Your task to perform on an android device: turn vacation reply on in the gmail app Image 0: 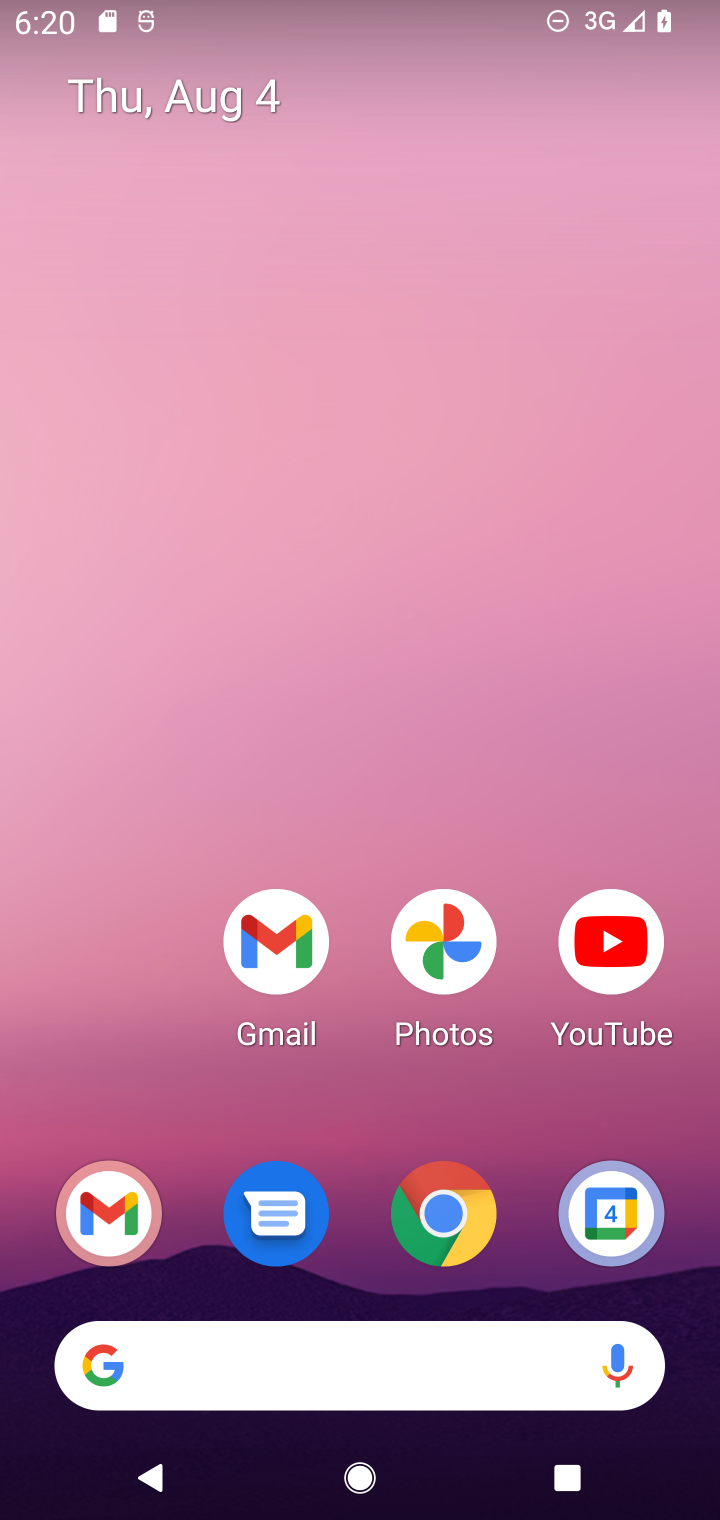
Step 0: press home button
Your task to perform on an android device: turn vacation reply on in the gmail app Image 1: 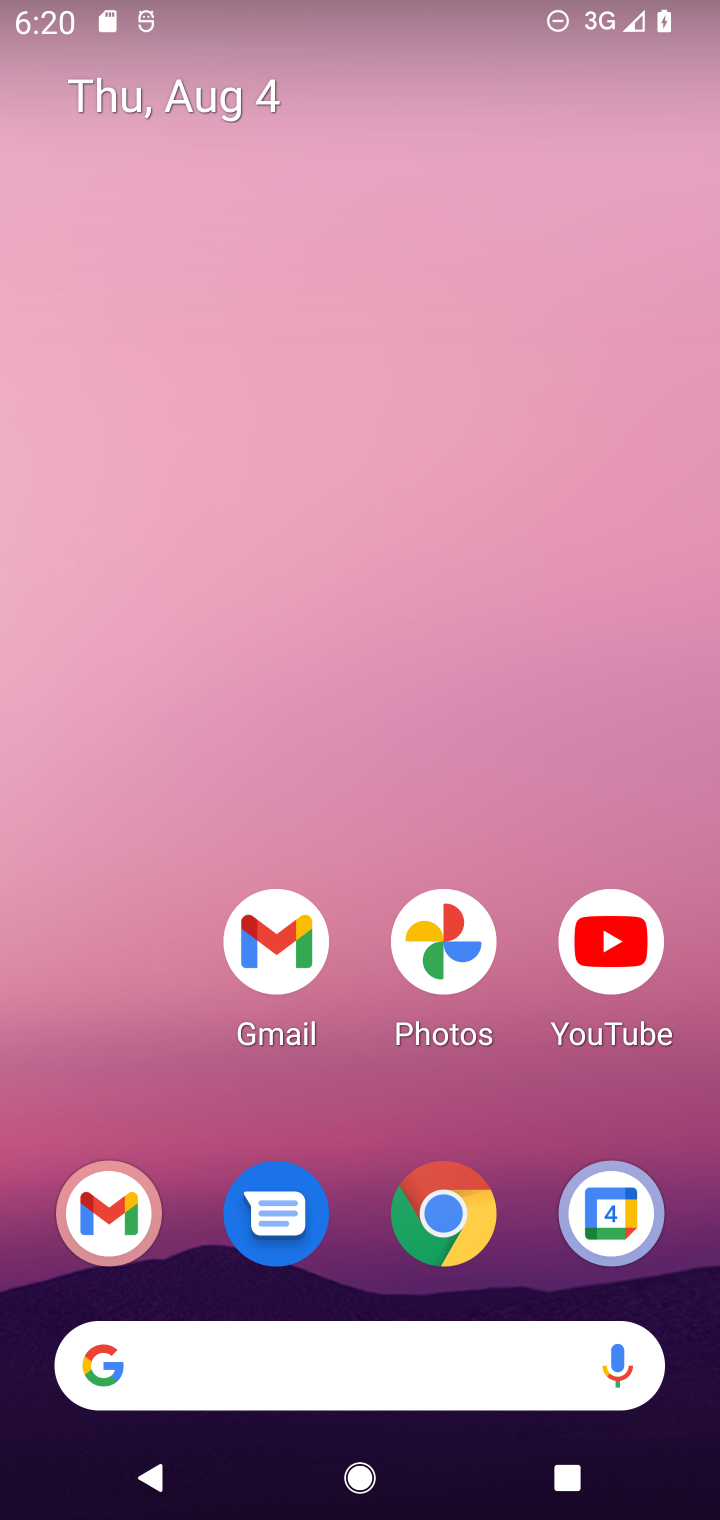
Step 1: drag from (171, 1112) to (198, 344)
Your task to perform on an android device: turn vacation reply on in the gmail app Image 2: 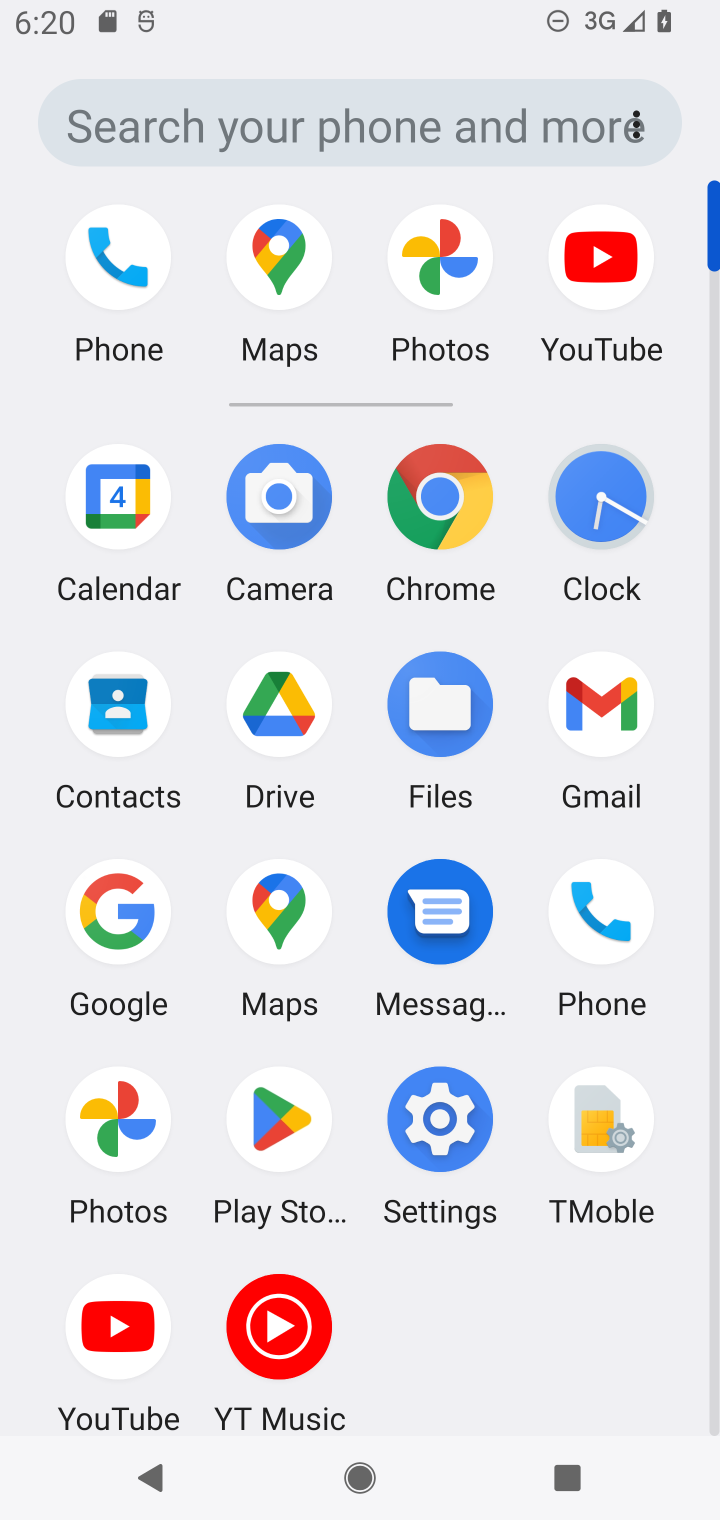
Step 2: click (613, 702)
Your task to perform on an android device: turn vacation reply on in the gmail app Image 3: 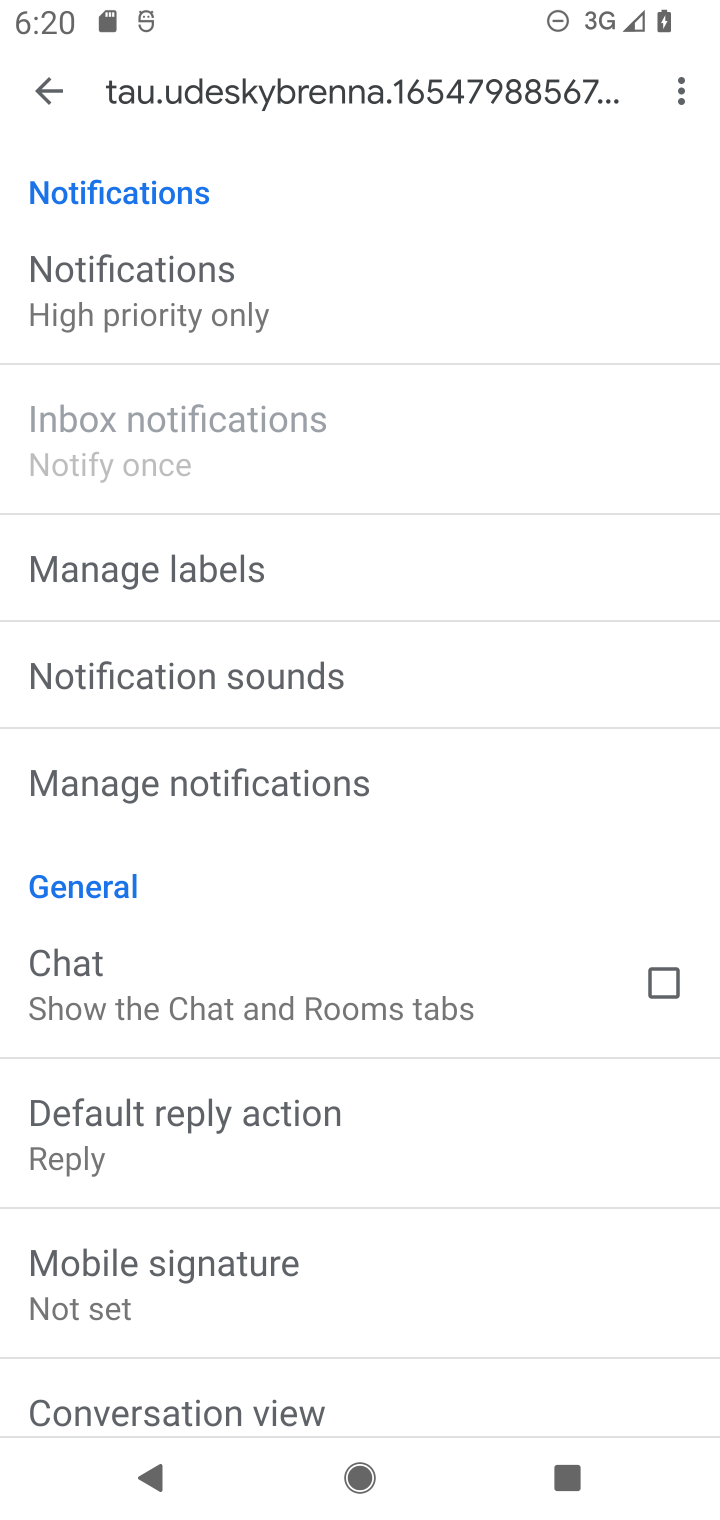
Step 3: drag from (456, 1104) to (490, 792)
Your task to perform on an android device: turn vacation reply on in the gmail app Image 4: 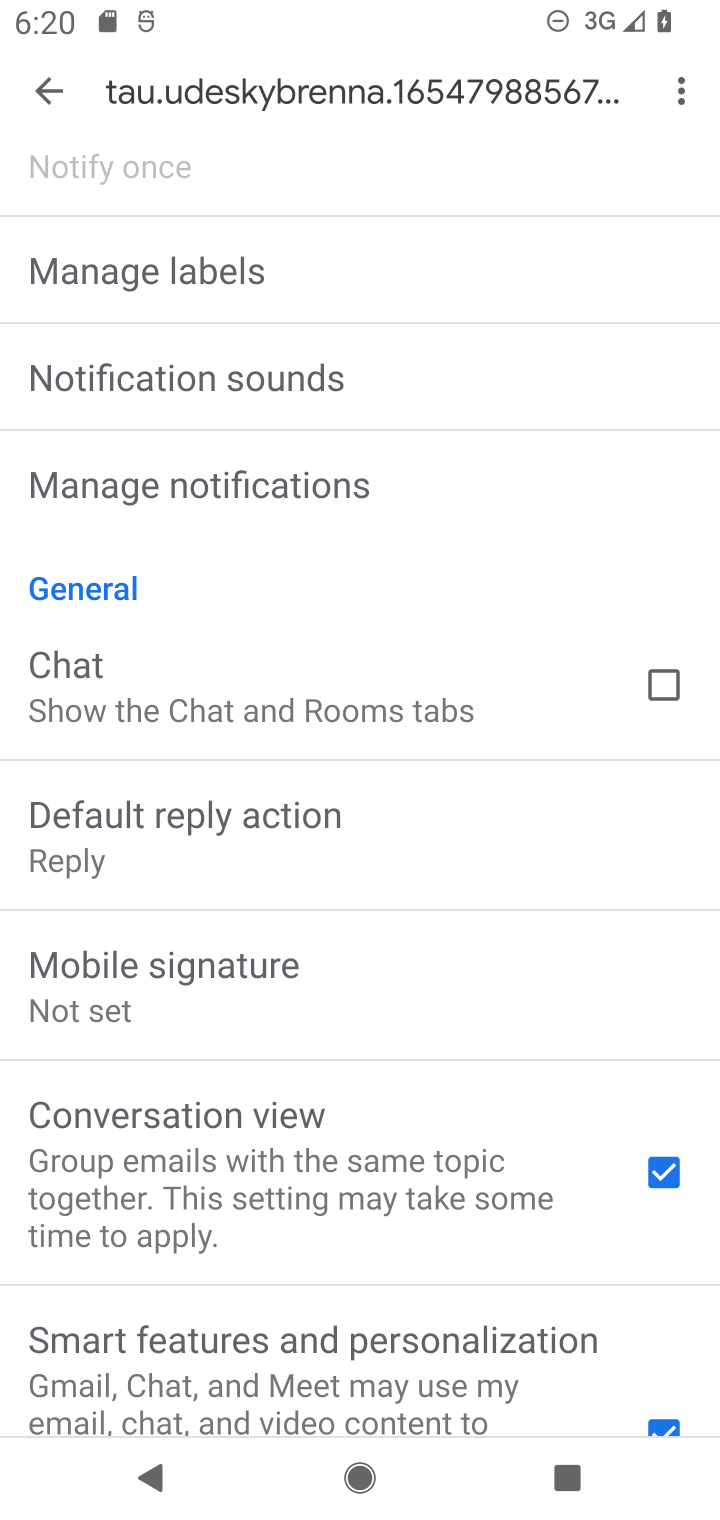
Step 4: drag from (546, 1054) to (552, 874)
Your task to perform on an android device: turn vacation reply on in the gmail app Image 5: 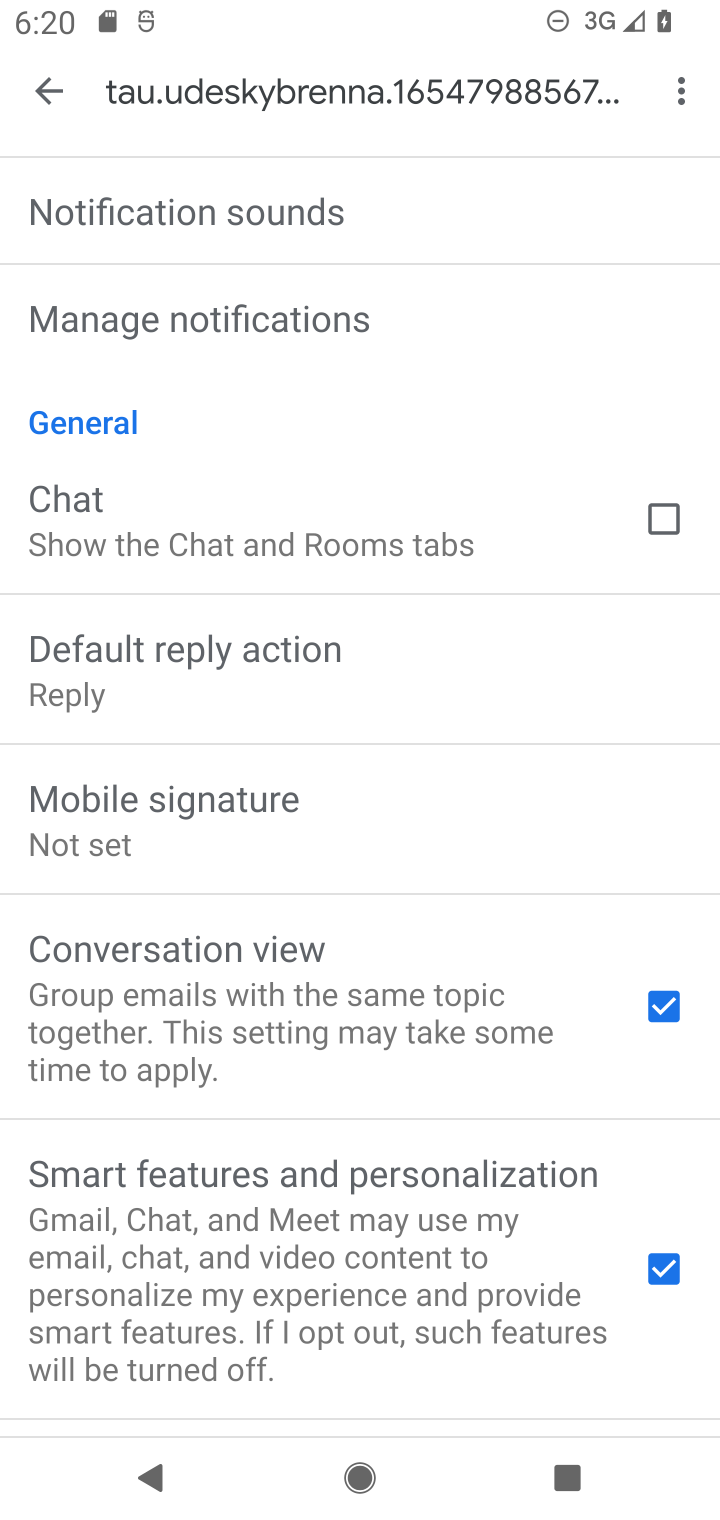
Step 5: drag from (488, 1168) to (511, 872)
Your task to perform on an android device: turn vacation reply on in the gmail app Image 6: 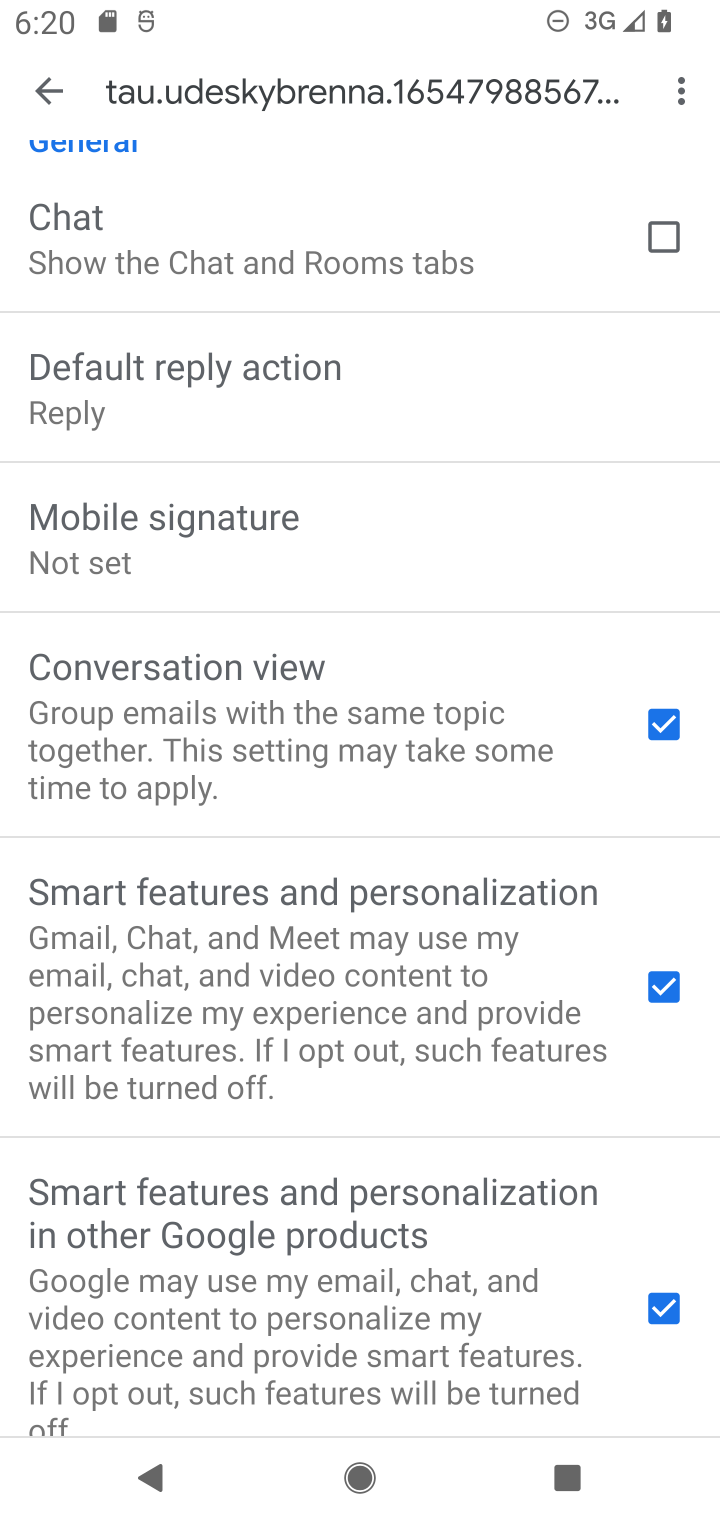
Step 6: drag from (469, 1233) to (483, 942)
Your task to perform on an android device: turn vacation reply on in the gmail app Image 7: 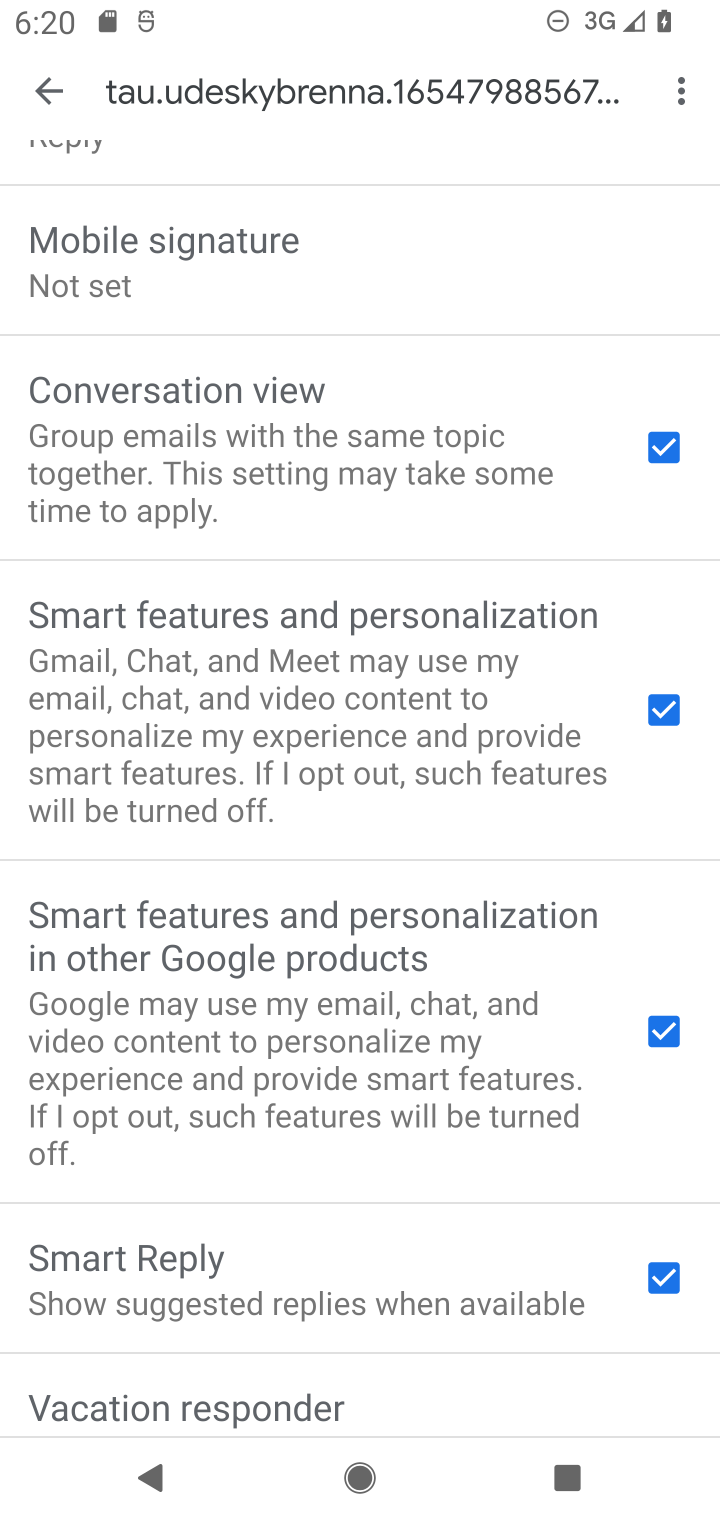
Step 7: drag from (455, 1281) to (451, 988)
Your task to perform on an android device: turn vacation reply on in the gmail app Image 8: 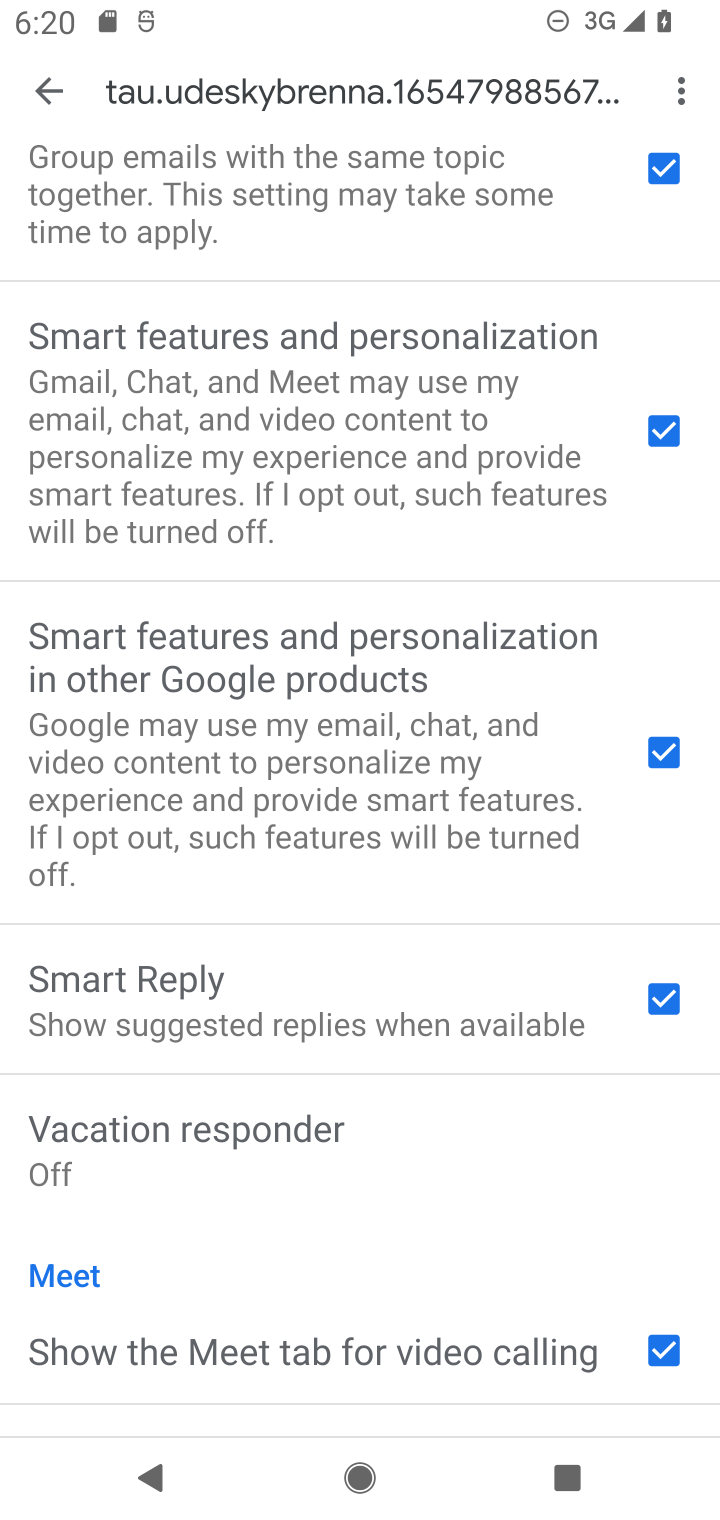
Step 8: drag from (427, 1240) to (441, 1071)
Your task to perform on an android device: turn vacation reply on in the gmail app Image 9: 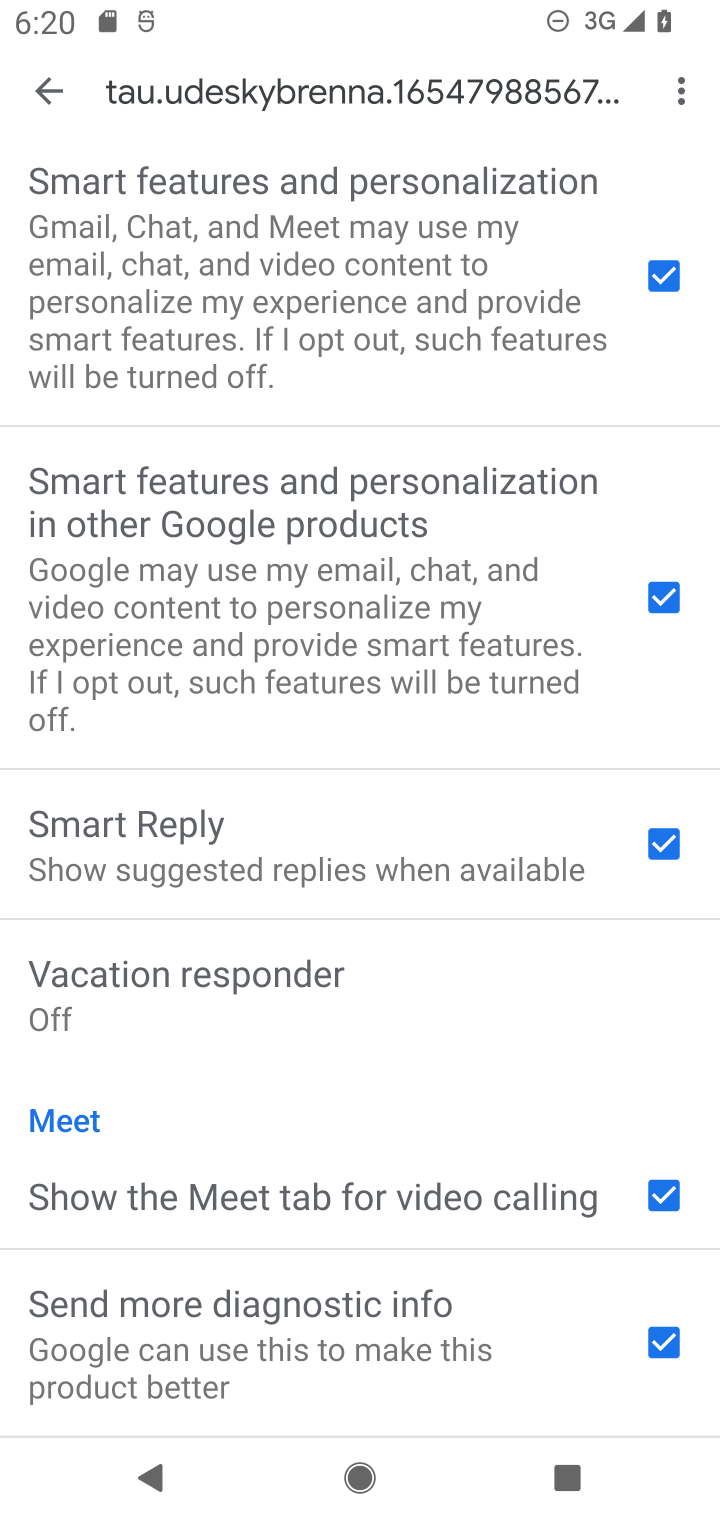
Step 9: click (293, 976)
Your task to perform on an android device: turn vacation reply on in the gmail app Image 10: 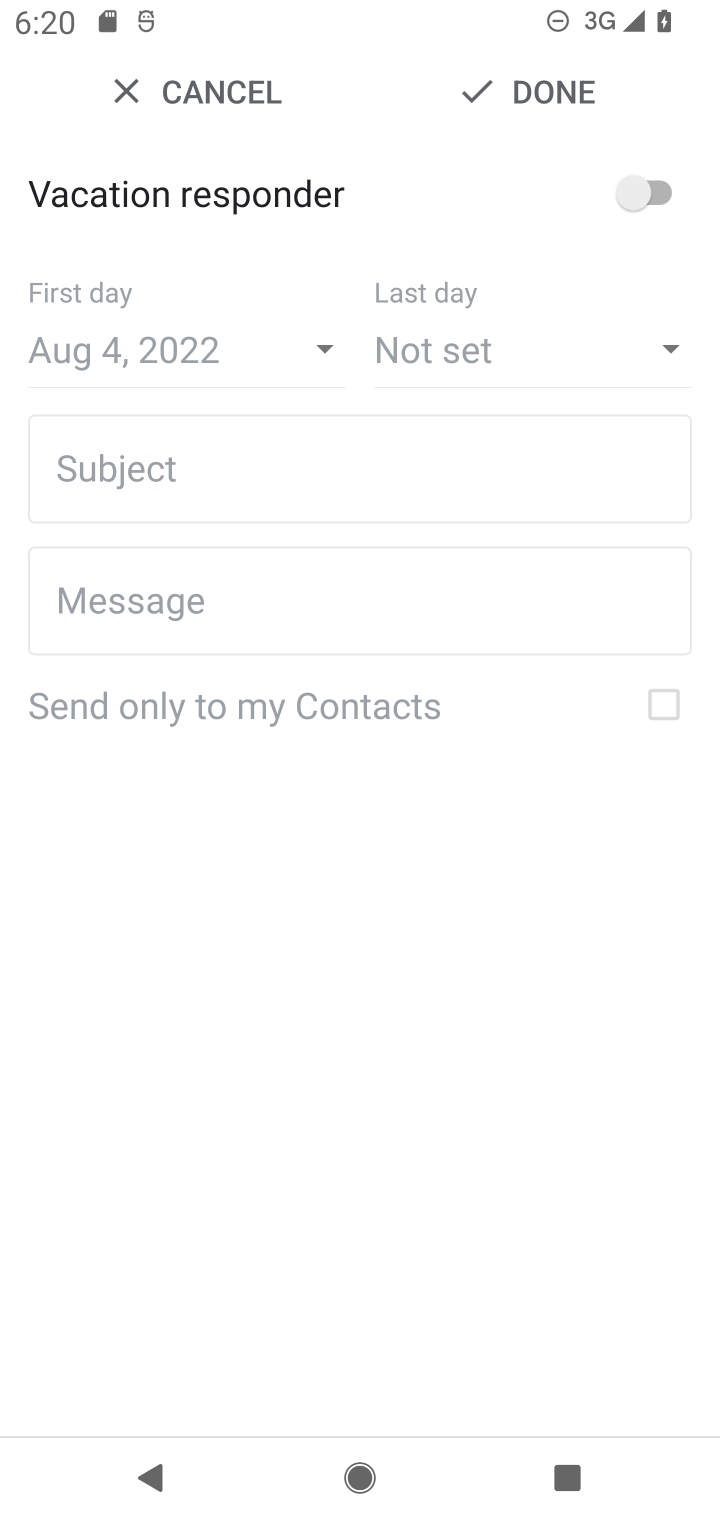
Step 10: click (637, 197)
Your task to perform on an android device: turn vacation reply on in the gmail app Image 11: 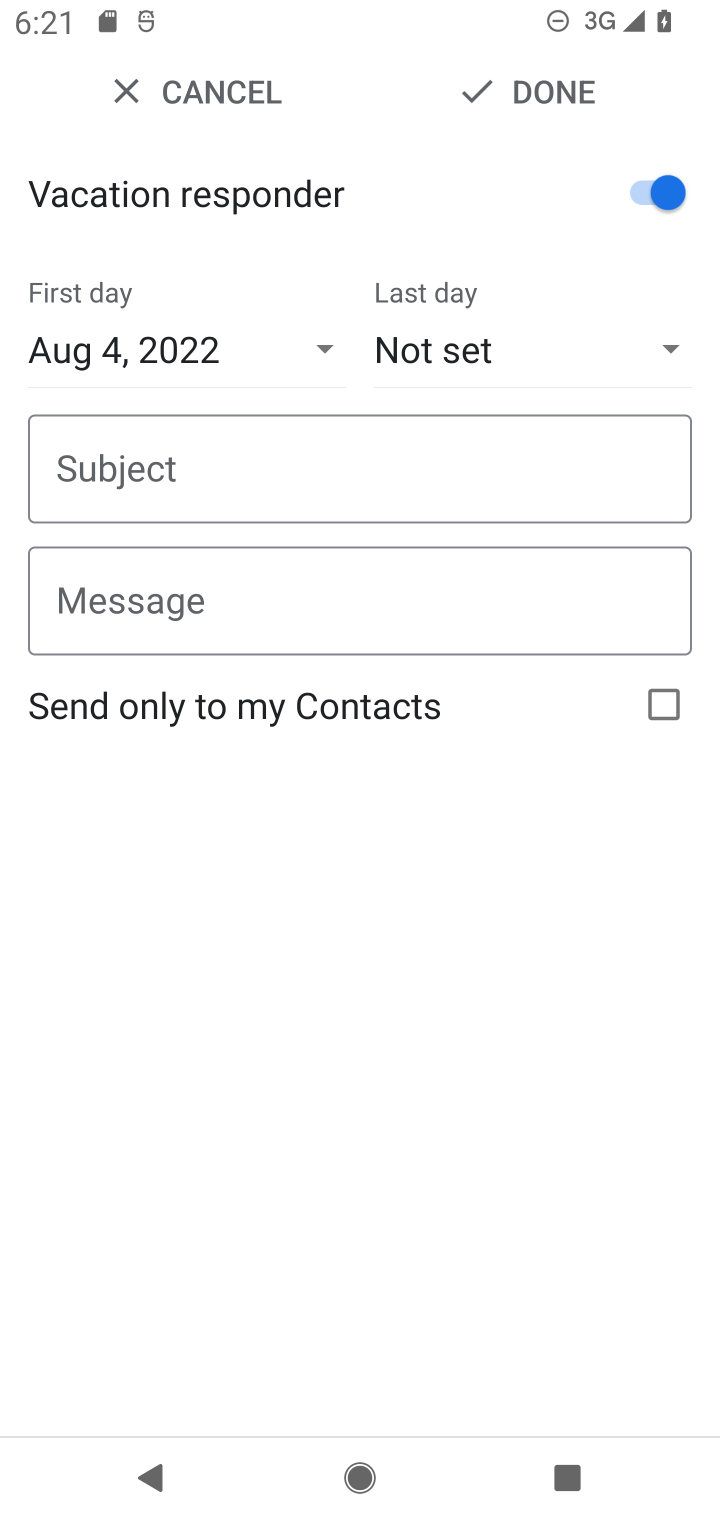
Step 11: task complete